Your task to perform on an android device: Go to display settings Image 0: 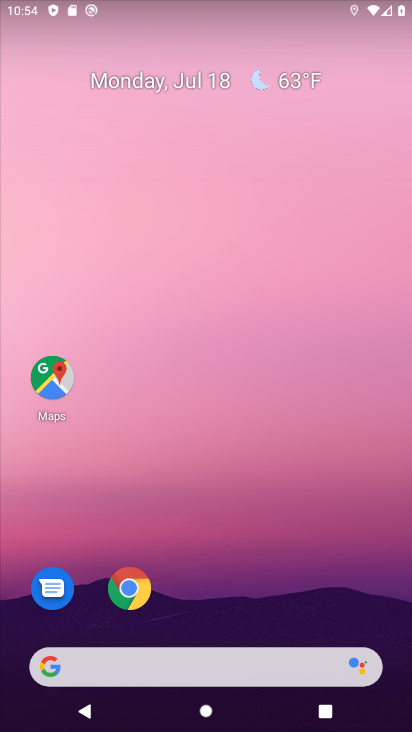
Step 0: drag from (187, 659) to (242, 58)
Your task to perform on an android device: Go to display settings Image 1: 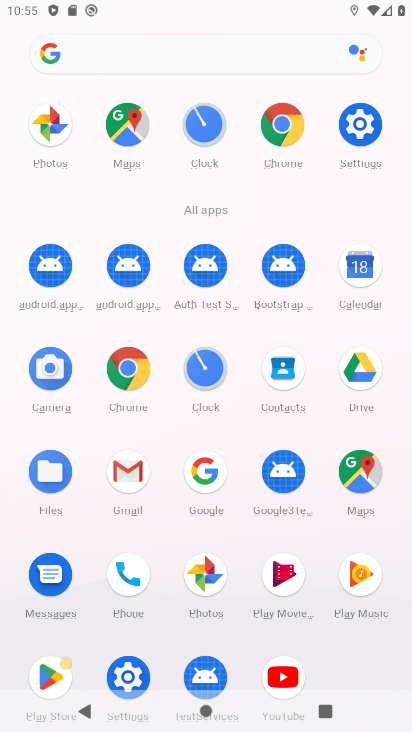
Step 1: click (123, 665)
Your task to perform on an android device: Go to display settings Image 2: 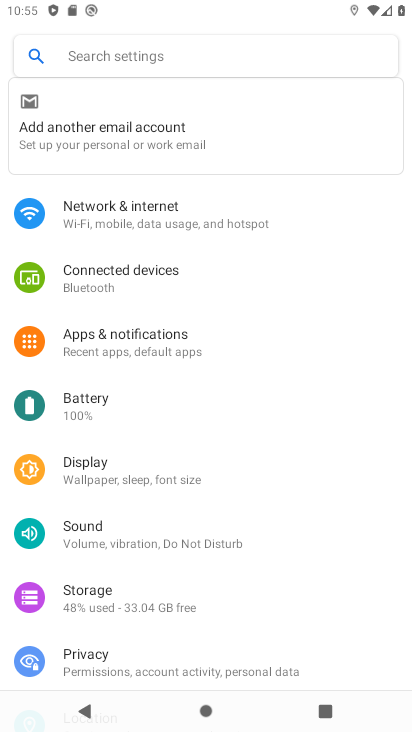
Step 2: click (111, 476)
Your task to perform on an android device: Go to display settings Image 3: 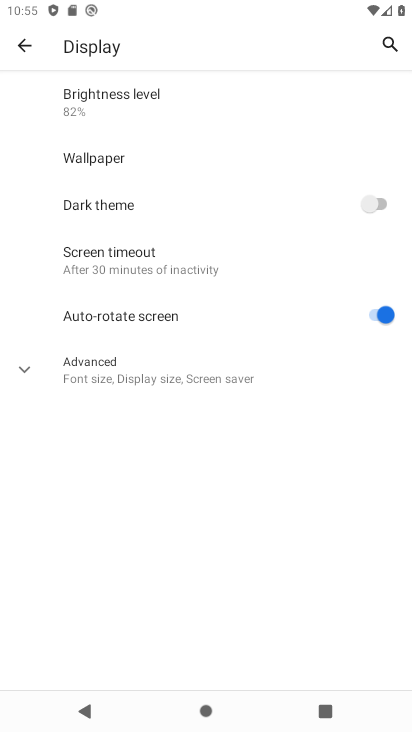
Step 3: task complete